Your task to perform on an android device: Open network settings Image 0: 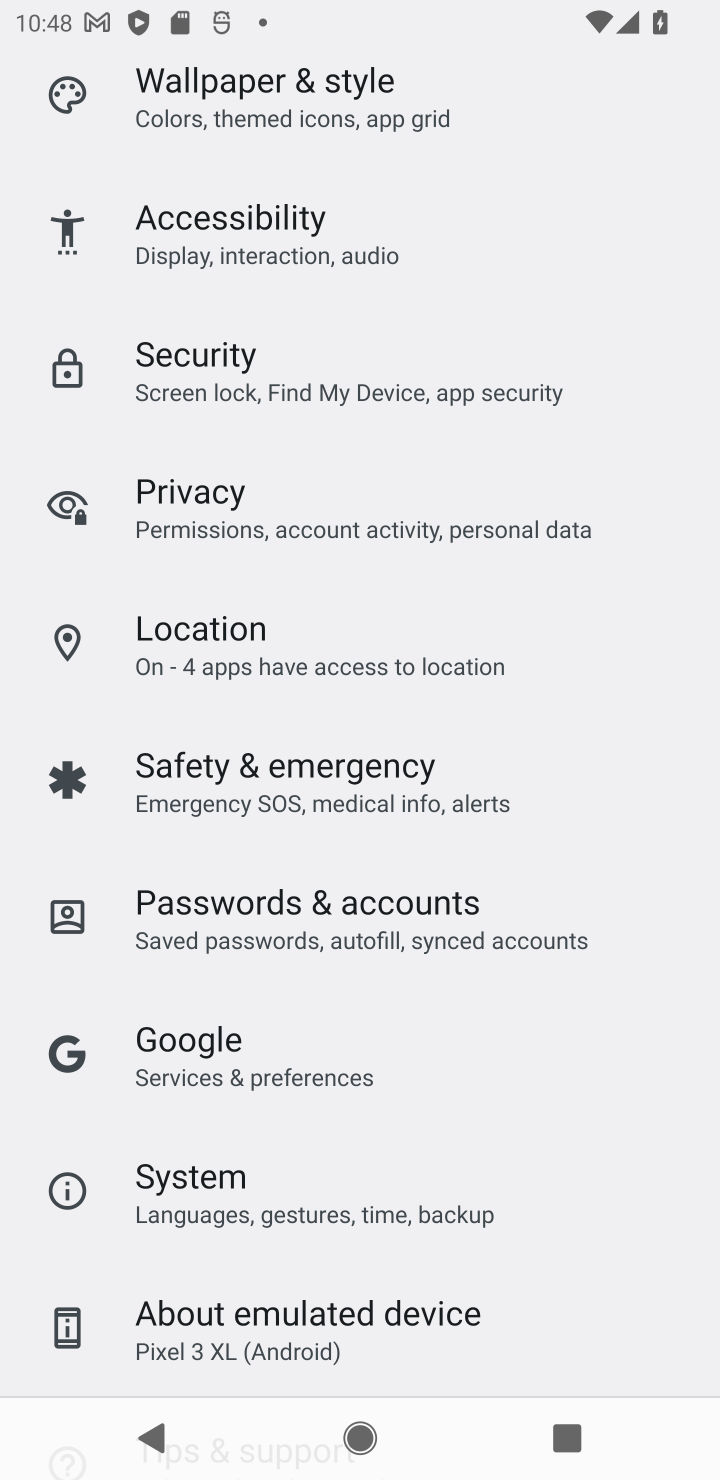
Step 0: press home button
Your task to perform on an android device: Open network settings Image 1: 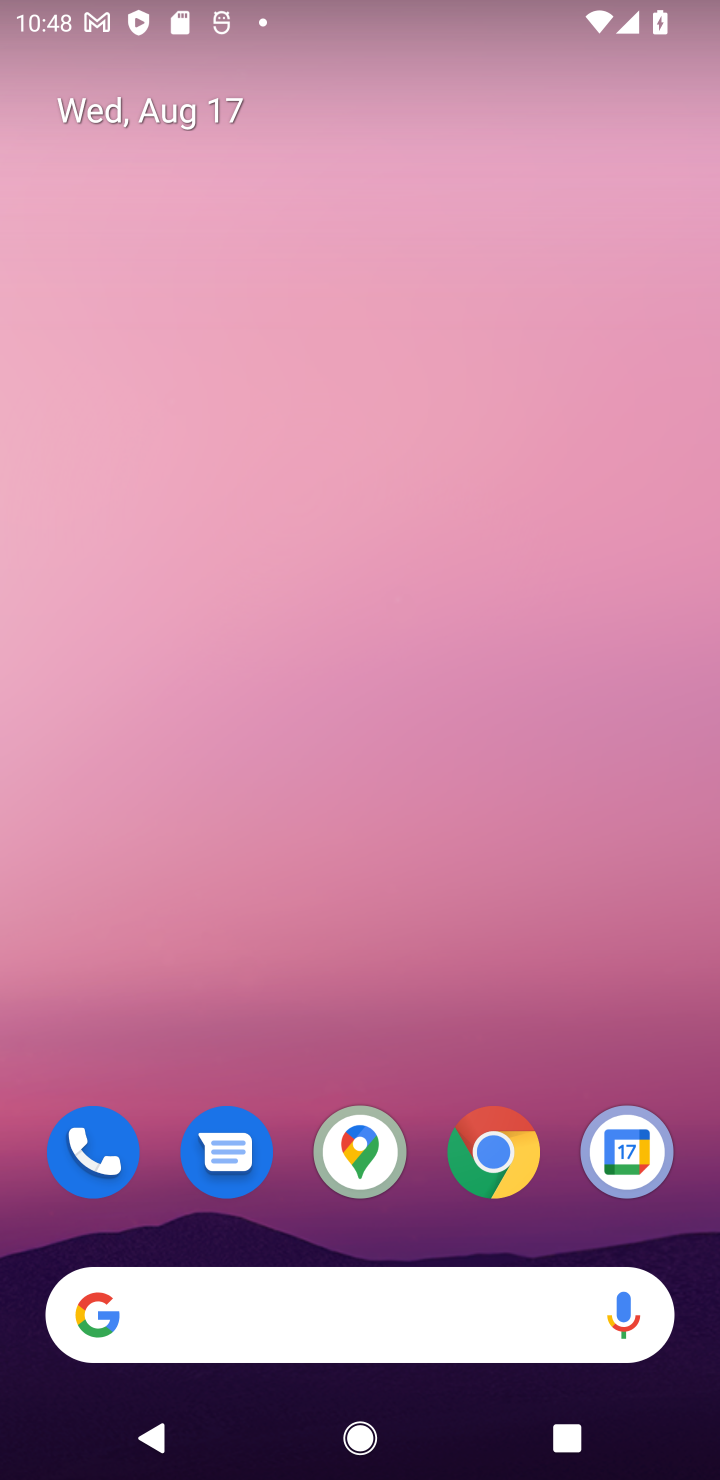
Step 1: drag from (557, 1209) to (449, 67)
Your task to perform on an android device: Open network settings Image 2: 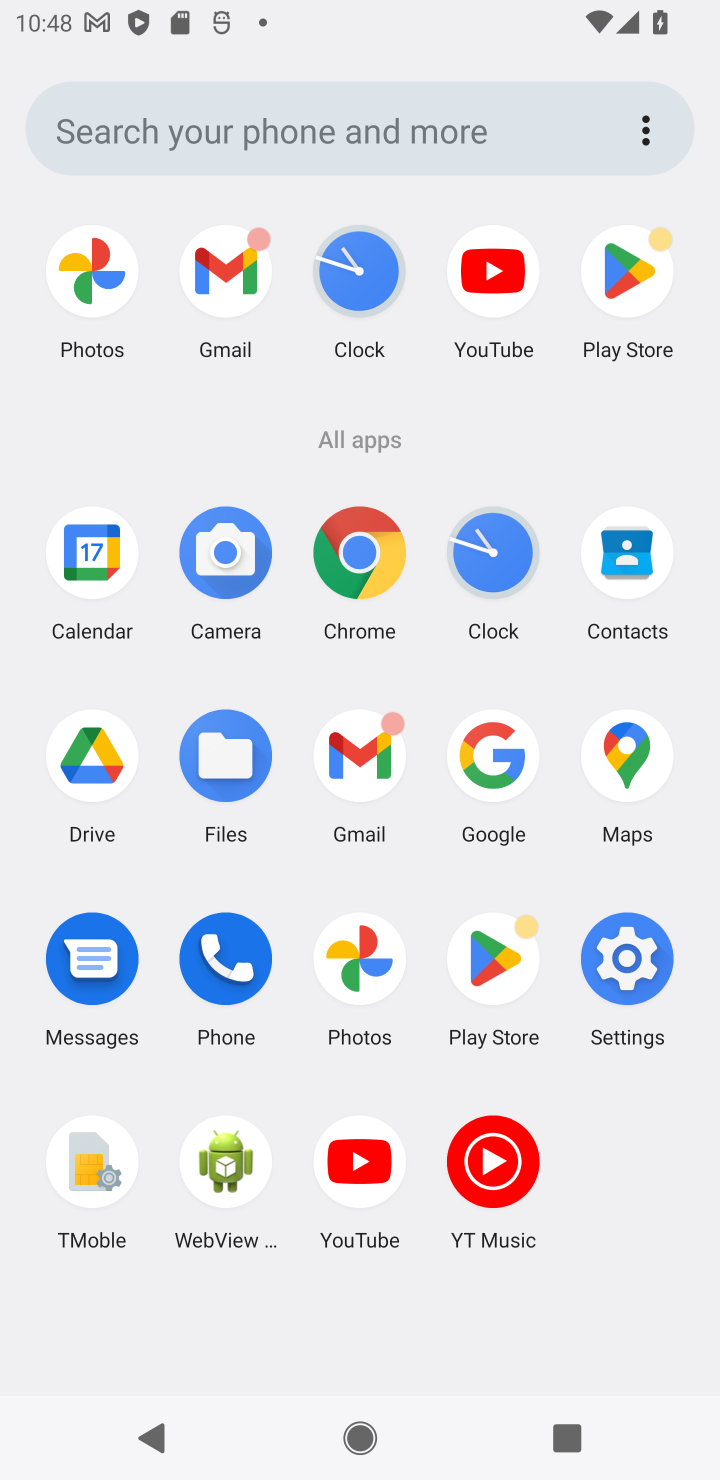
Step 2: click (638, 964)
Your task to perform on an android device: Open network settings Image 3: 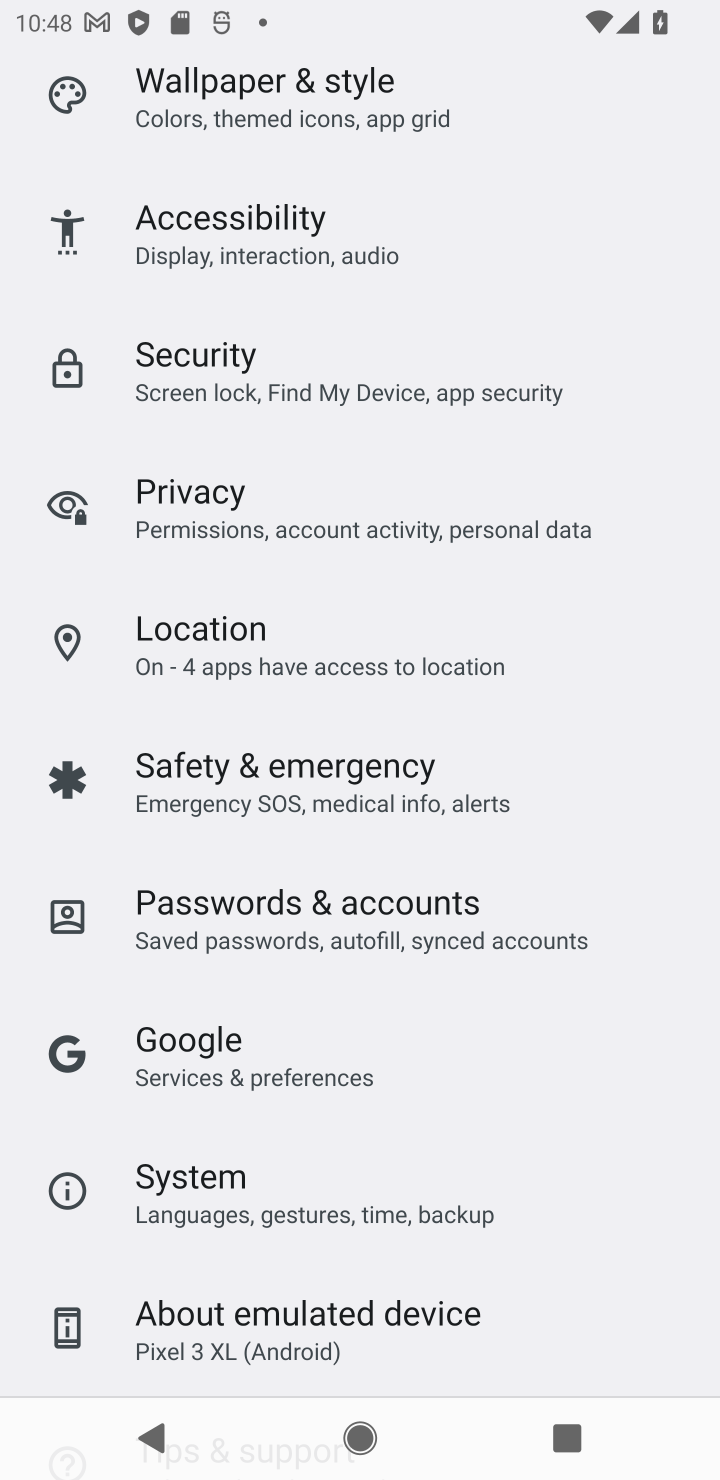
Step 3: drag from (497, 120) to (482, 1313)
Your task to perform on an android device: Open network settings Image 4: 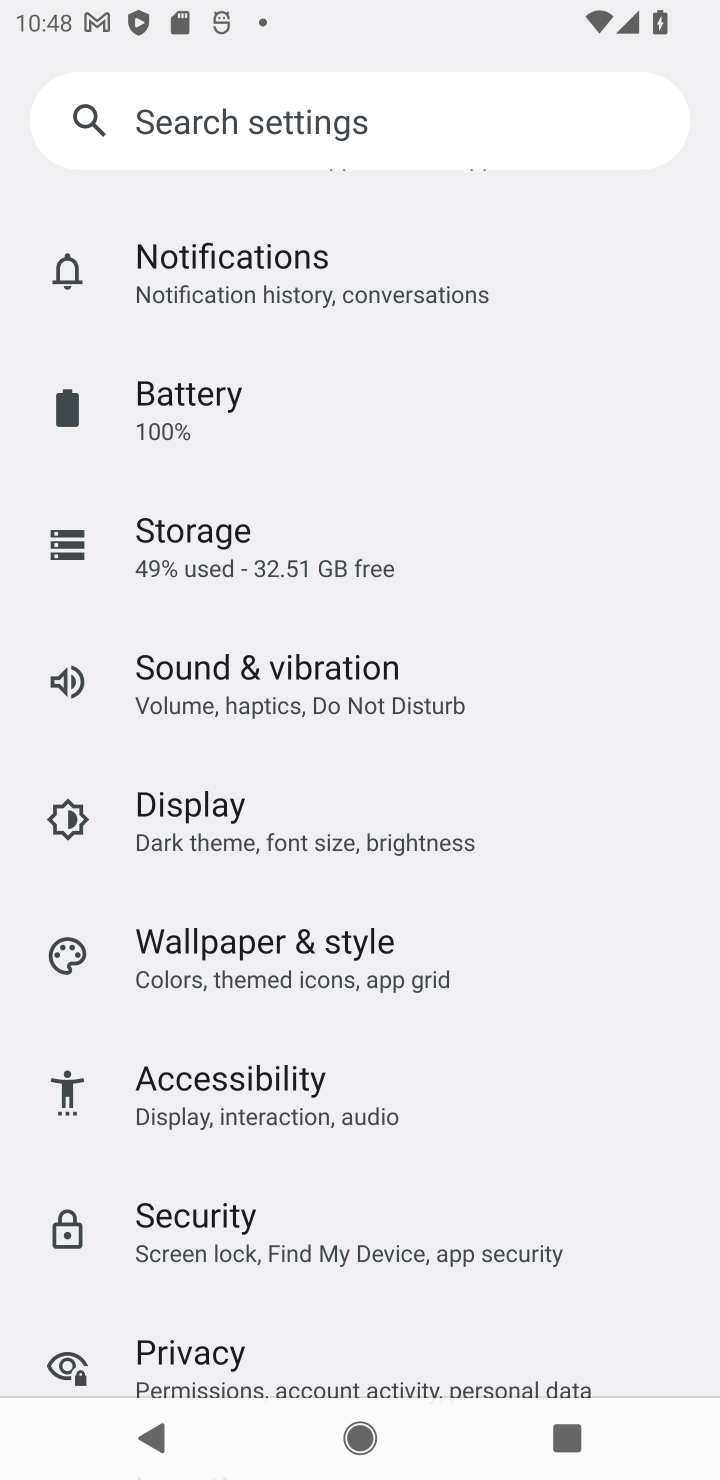
Step 4: drag from (343, 260) to (403, 1208)
Your task to perform on an android device: Open network settings Image 5: 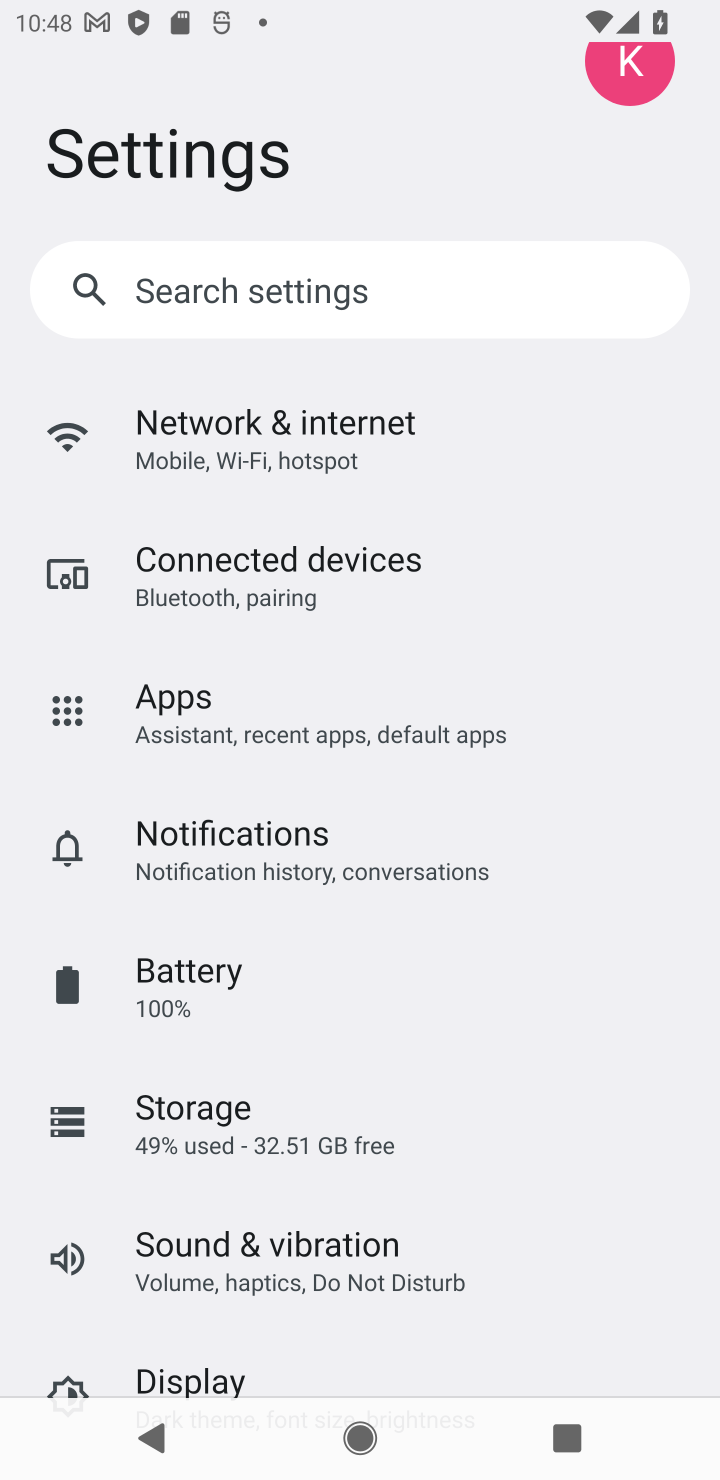
Step 5: click (327, 424)
Your task to perform on an android device: Open network settings Image 6: 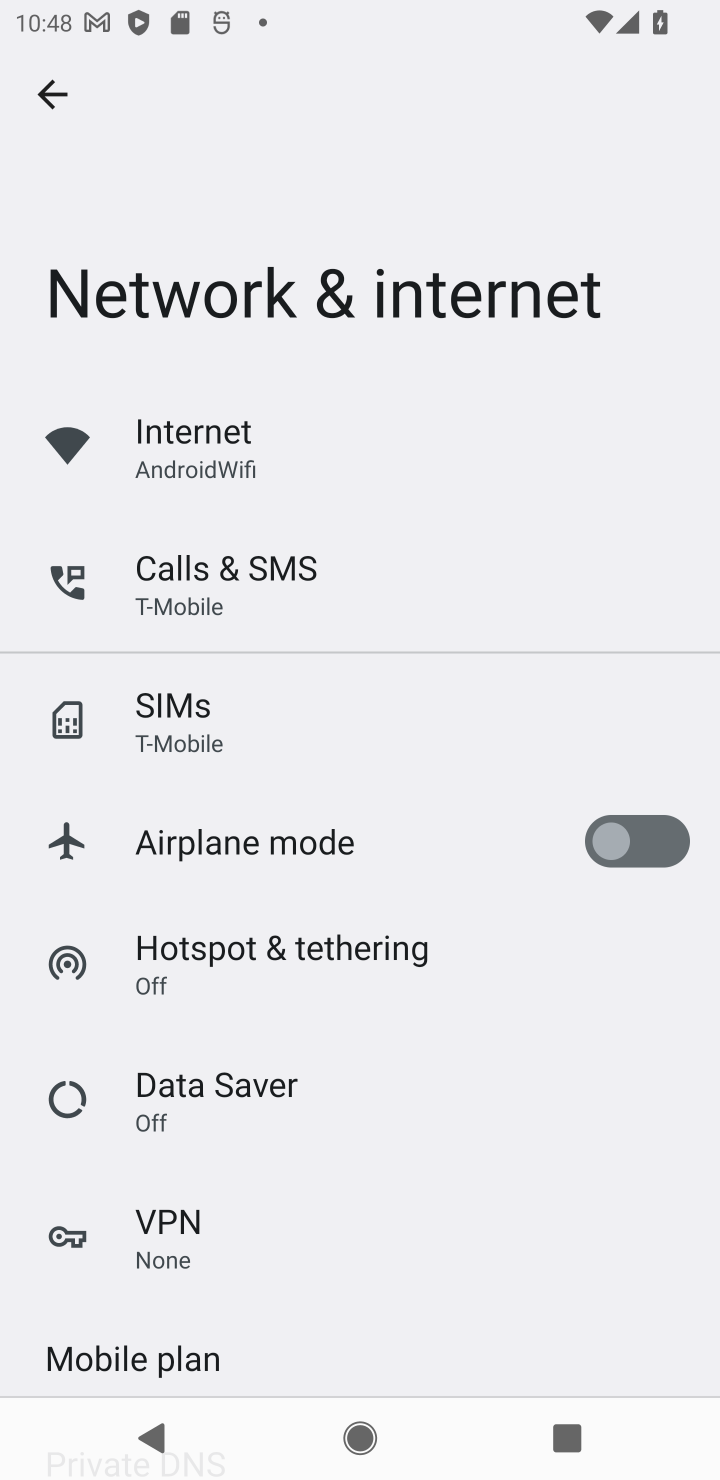
Step 6: task complete